Your task to perform on an android device: toggle show notifications on the lock screen Image 0: 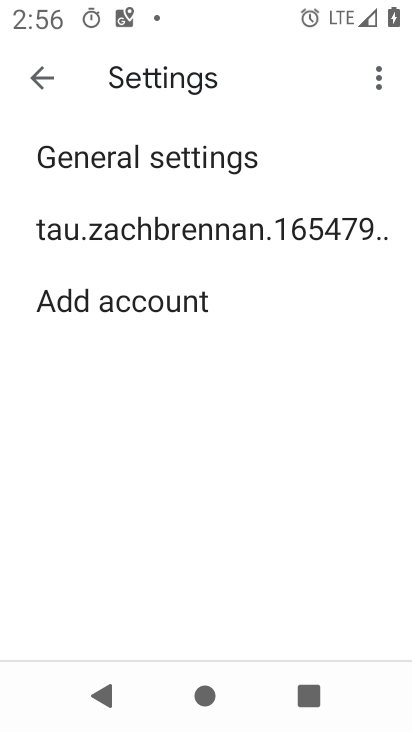
Step 0: press home button
Your task to perform on an android device: toggle show notifications on the lock screen Image 1: 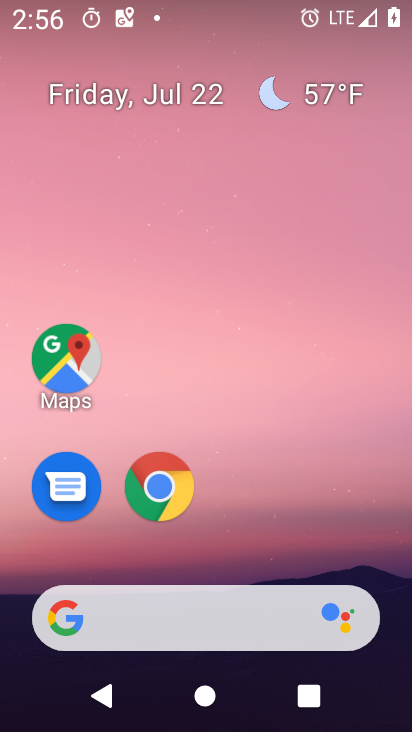
Step 1: drag from (348, 538) to (346, 105)
Your task to perform on an android device: toggle show notifications on the lock screen Image 2: 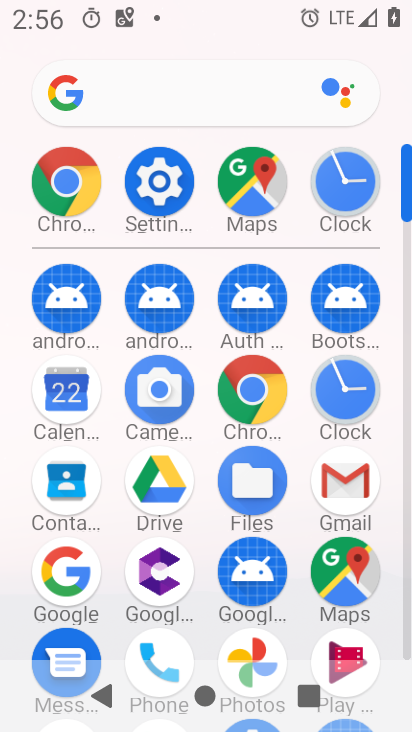
Step 2: click (164, 194)
Your task to perform on an android device: toggle show notifications on the lock screen Image 3: 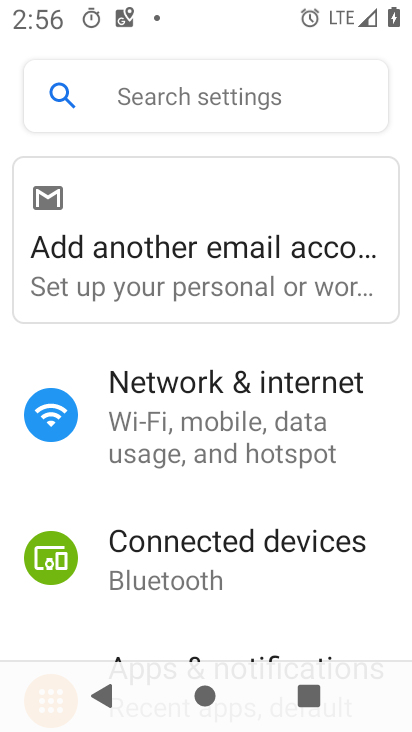
Step 3: drag from (378, 507) to (378, 413)
Your task to perform on an android device: toggle show notifications on the lock screen Image 4: 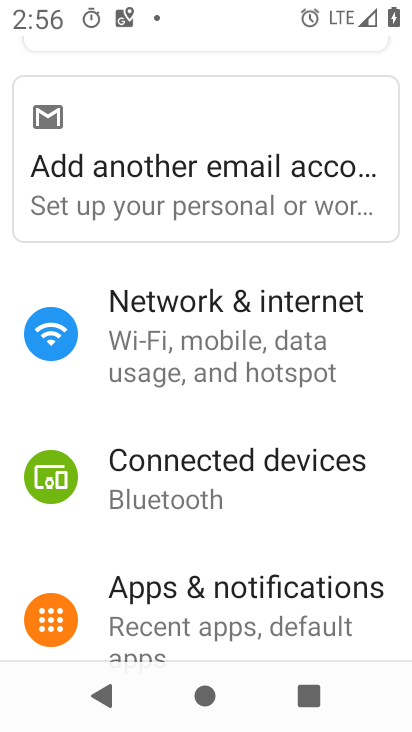
Step 4: drag from (362, 584) to (361, 453)
Your task to perform on an android device: toggle show notifications on the lock screen Image 5: 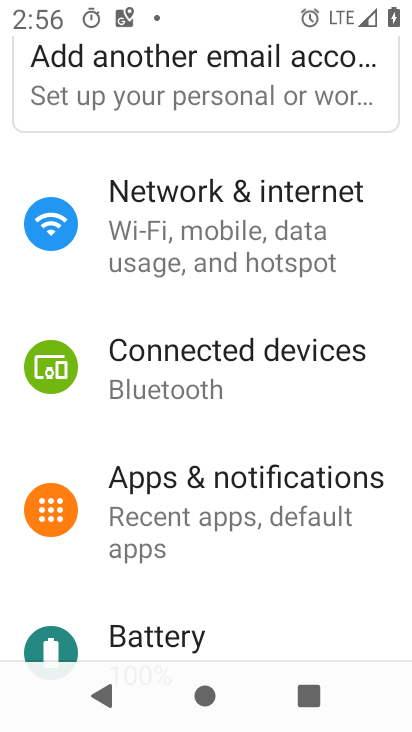
Step 5: drag from (351, 577) to (352, 437)
Your task to perform on an android device: toggle show notifications on the lock screen Image 6: 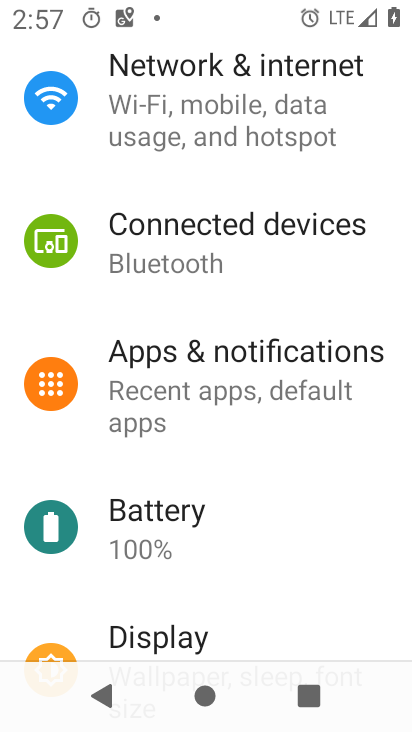
Step 6: drag from (358, 536) to (354, 418)
Your task to perform on an android device: toggle show notifications on the lock screen Image 7: 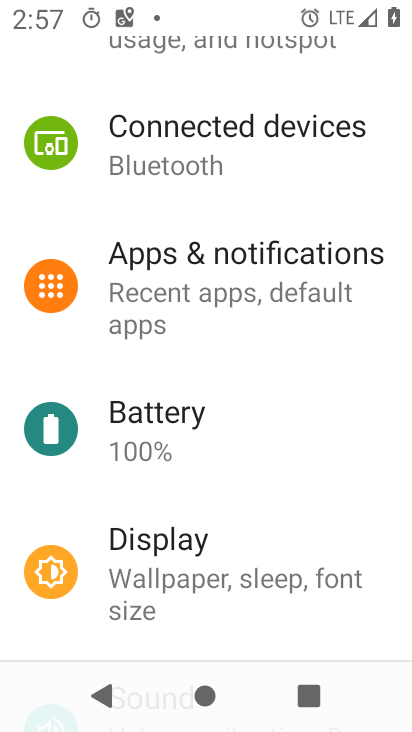
Step 7: drag from (356, 596) to (360, 444)
Your task to perform on an android device: toggle show notifications on the lock screen Image 8: 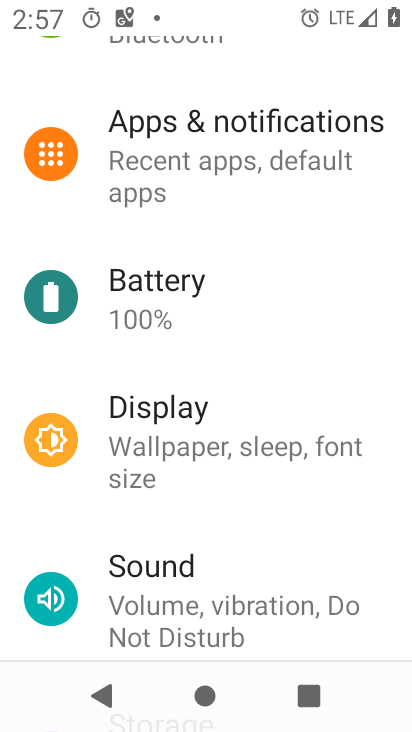
Step 8: drag from (356, 532) to (356, 443)
Your task to perform on an android device: toggle show notifications on the lock screen Image 9: 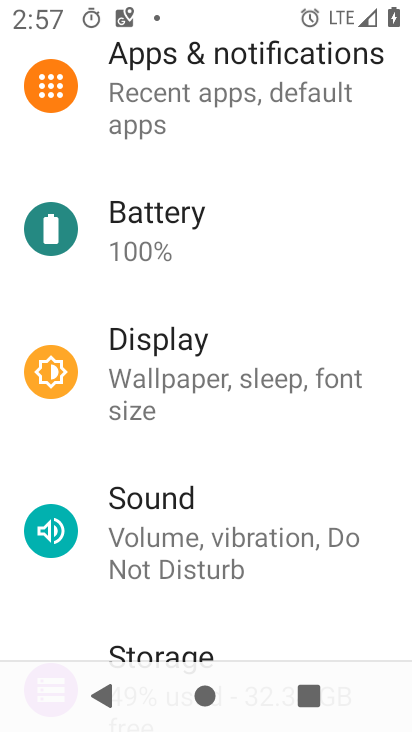
Step 9: drag from (376, 282) to (373, 367)
Your task to perform on an android device: toggle show notifications on the lock screen Image 10: 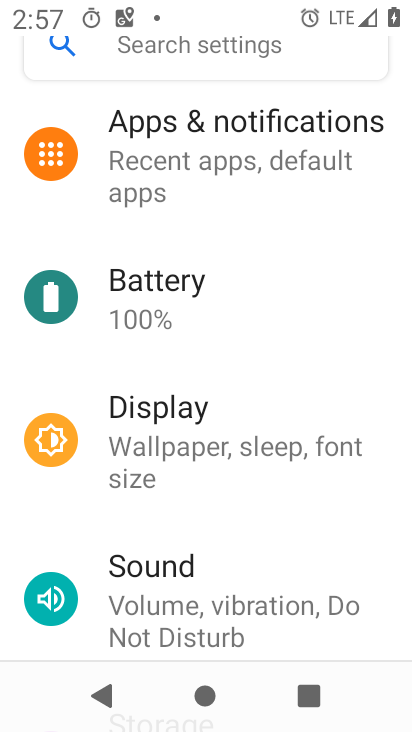
Step 10: drag from (376, 254) to (371, 360)
Your task to perform on an android device: toggle show notifications on the lock screen Image 11: 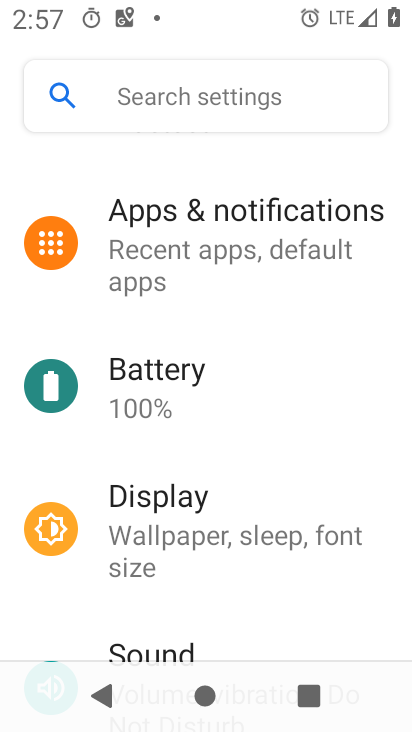
Step 11: drag from (365, 257) to (354, 438)
Your task to perform on an android device: toggle show notifications on the lock screen Image 12: 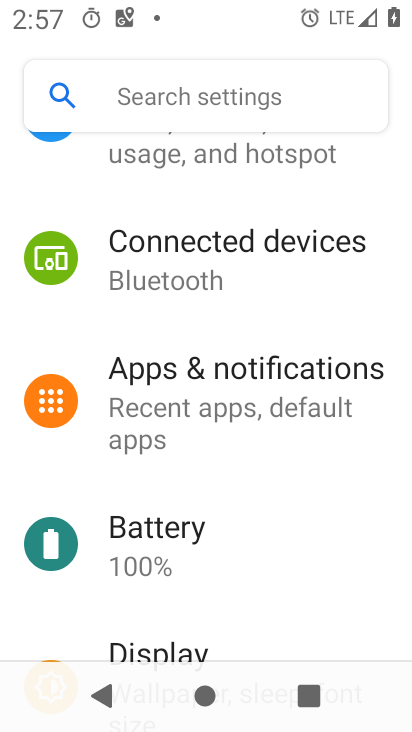
Step 12: drag from (358, 287) to (347, 453)
Your task to perform on an android device: toggle show notifications on the lock screen Image 13: 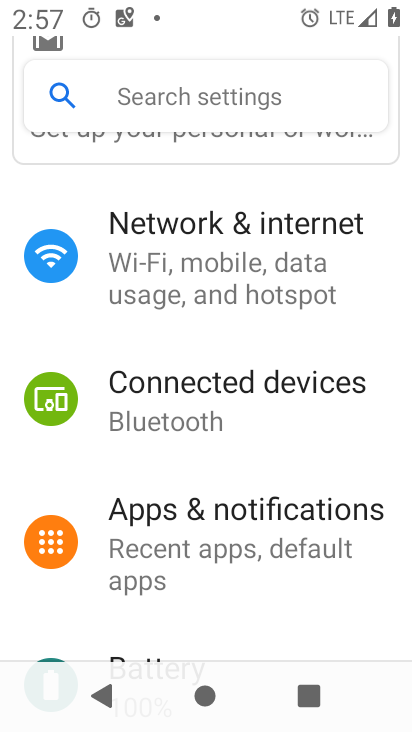
Step 13: click (302, 539)
Your task to perform on an android device: toggle show notifications on the lock screen Image 14: 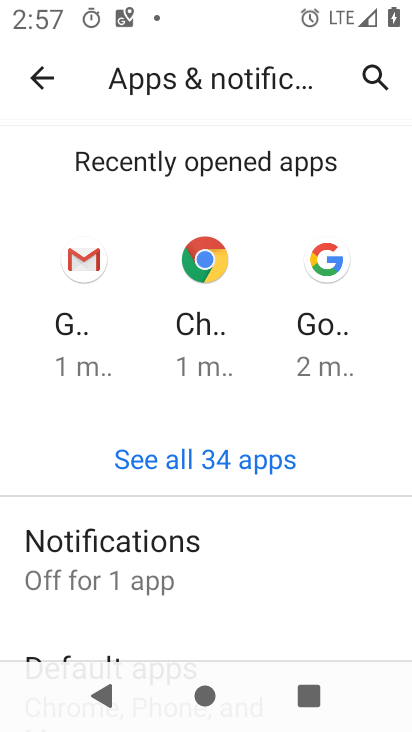
Step 14: click (267, 559)
Your task to perform on an android device: toggle show notifications on the lock screen Image 15: 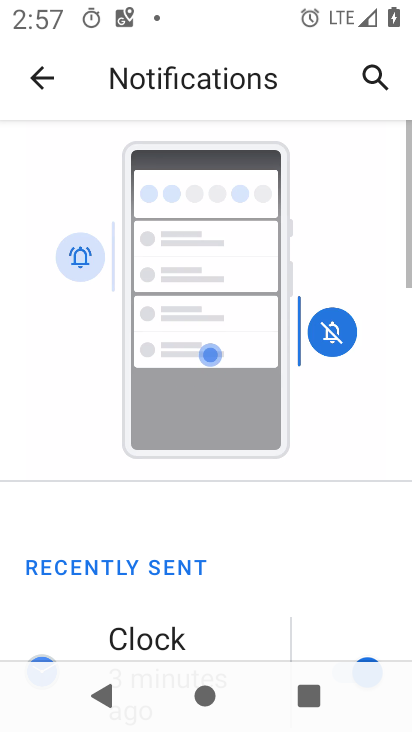
Step 15: drag from (269, 575) to (273, 439)
Your task to perform on an android device: toggle show notifications on the lock screen Image 16: 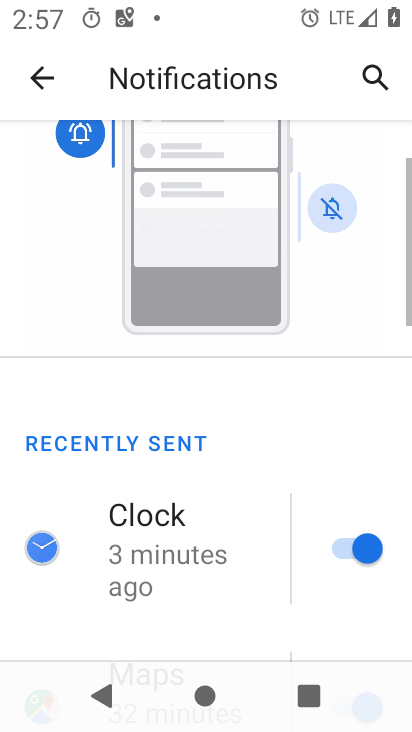
Step 16: drag from (263, 575) to (257, 479)
Your task to perform on an android device: toggle show notifications on the lock screen Image 17: 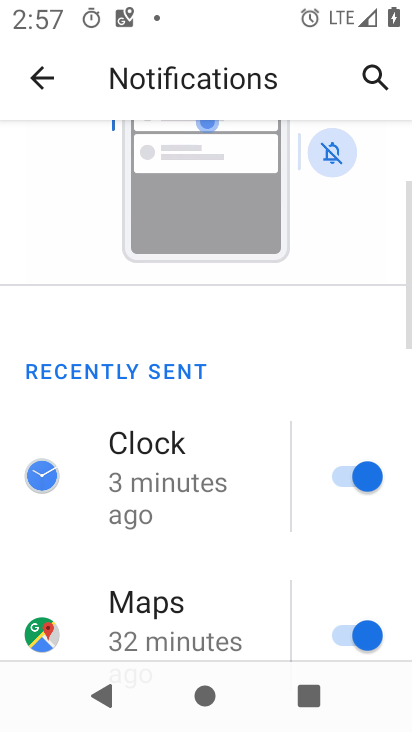
Step 17: drag from (243, 572) to (246, 459)
Your task to perform on an android device: toggle show notifications on the lock screen Image 18: 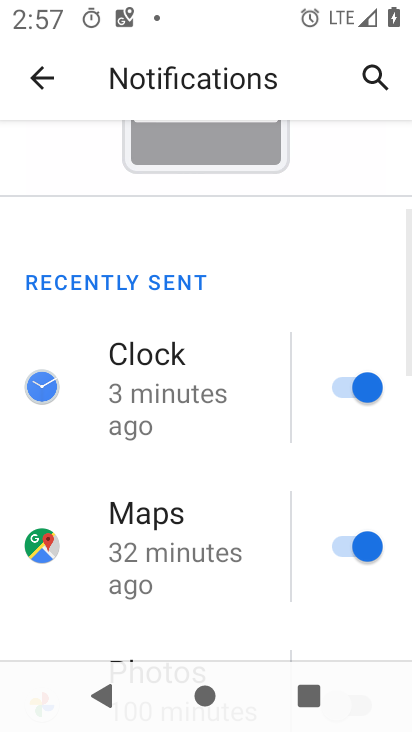
Step 18: drag from (253, 591) to (258, 463)
Your task to perform on an android device: toggle show notifications on the lock screen Image 19: 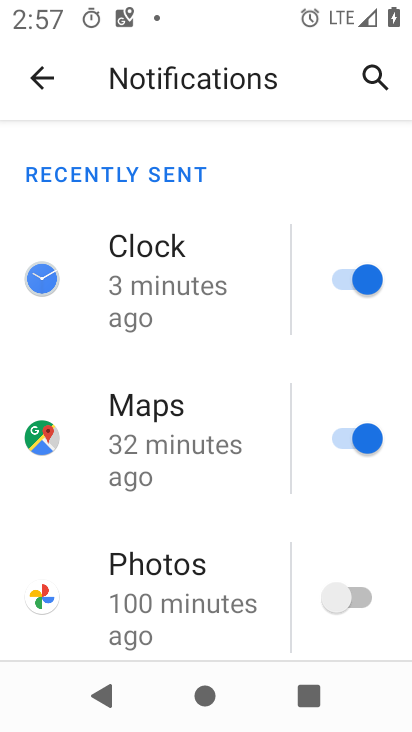
Step 19: drag from (242, 517) to (249, 428)
Your task to perform on an android device: toggle show notifications on the lock screen Image 20: 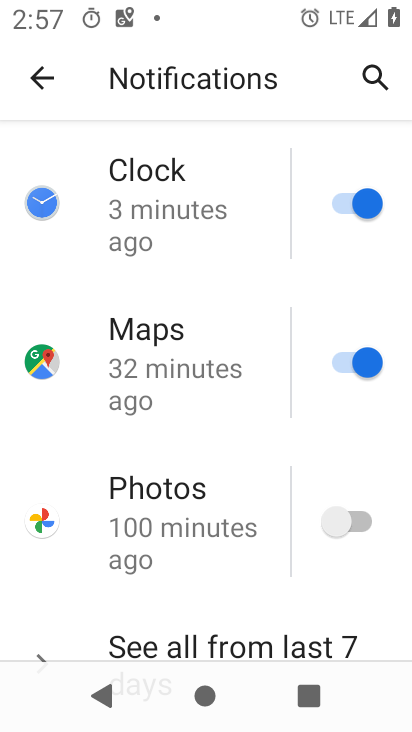
Step 20: drag from (256, 566) to (264, 462)
Your task to perform on an android device: toggle show notifications on the lock screen Image 21: 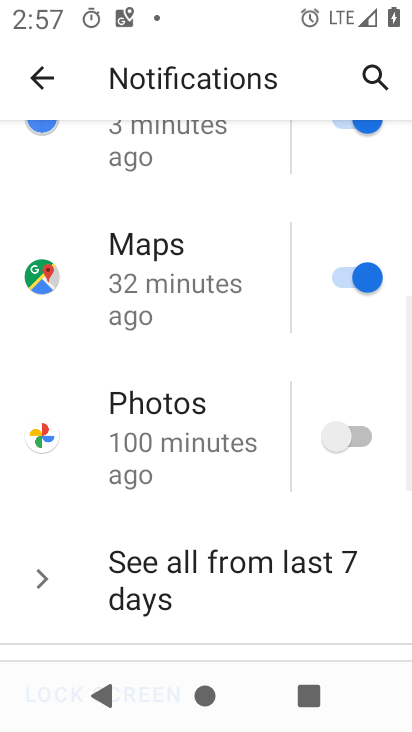
Step 21: drag from (256, 584) to (254, 477)
Your task to perform on an android device: toggle show notifications on the lock screen Image 22: 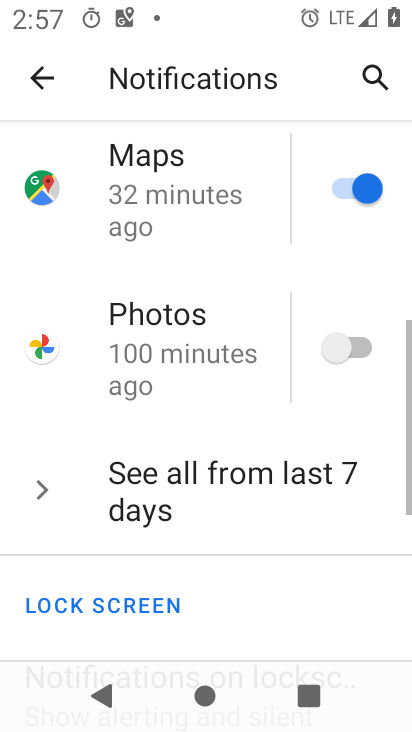
Step 22: drag from (244, 587) to (246, 484)
Your task to perform on an android device: toggle show notifications on the lock screen Image 23: 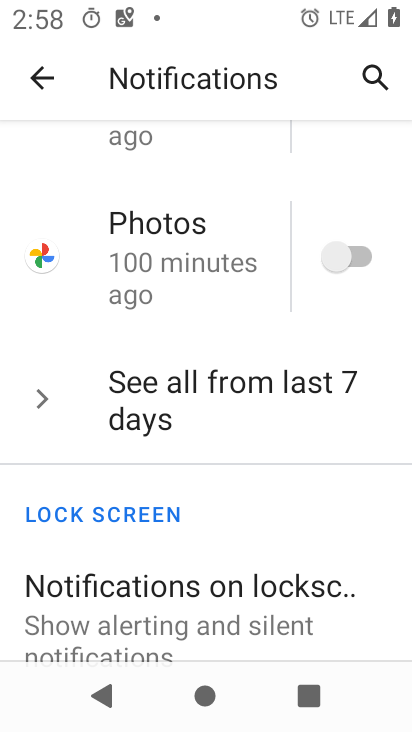
Step 23: drag from (257, 615) to (260, 514)
Your task to perform on an android device: toggle show notifications on the lock screen Image 24: 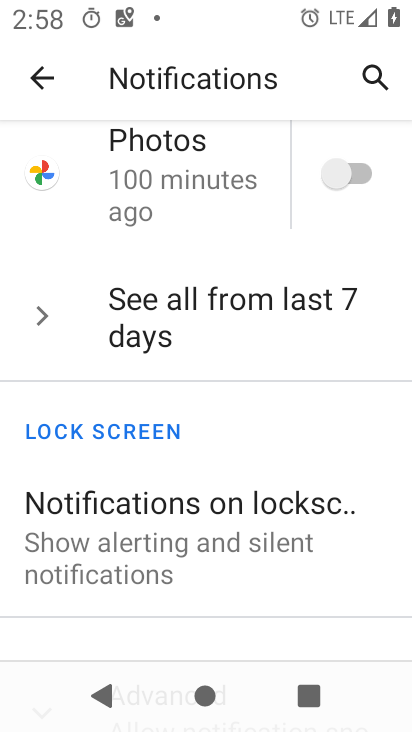
Step 24: drag from (254, 594) to (250, 504)
Your task to perform on an android device: toggle show notifications on the lock screen Image 25: 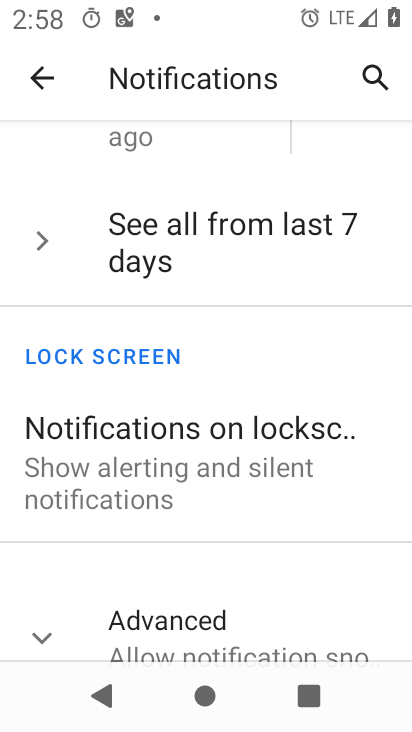
Step 25: click (265, 475)
Your task to perform on an android device: toggle show notifications on the lock screen Image 26: 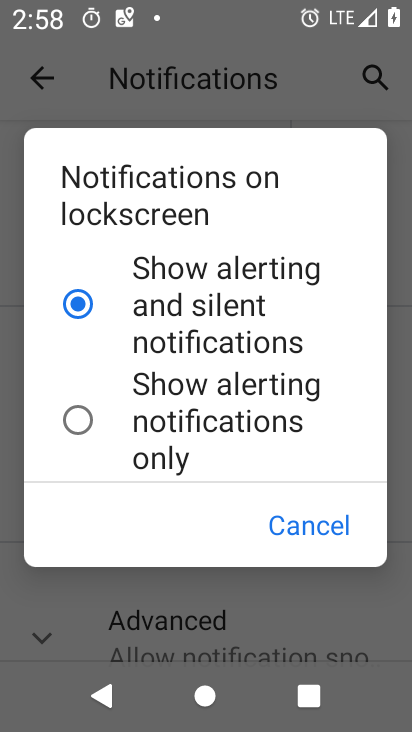
Step 26: click (266, 409)
Your task to perform on an android device: toggle show notifications on the lock screen Image 27: 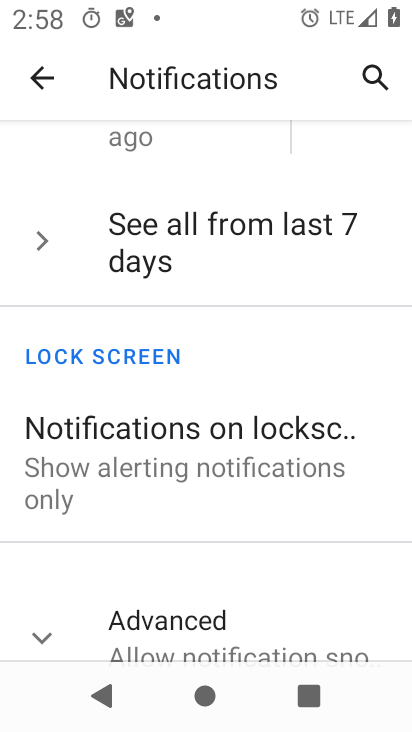
Step 27: task complete